Your task to perform on an android device: When is my next appointment? Image 0: 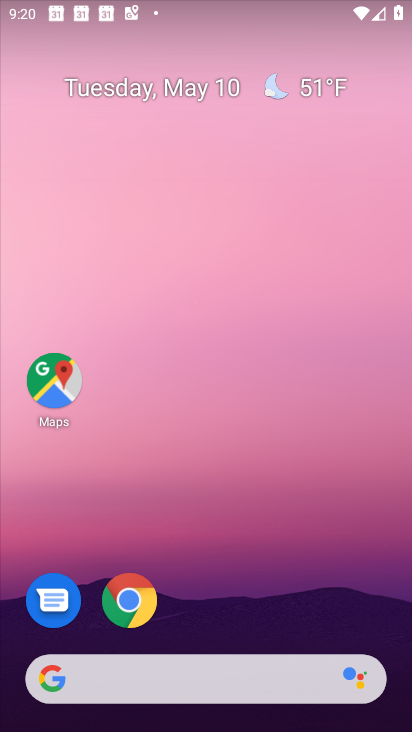
Step 0: click (213, 87)
Your task to perform on an android device: When is my next appointment? Image 1: 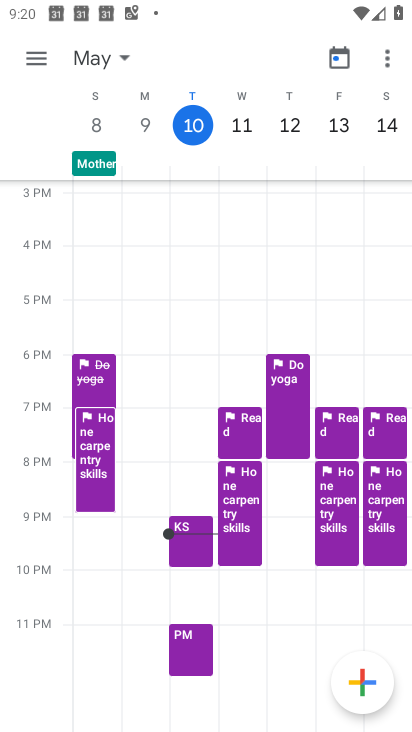
Step 1: click (40, 62)
Your task to perform on an android device: When is my next appointment? Image 2: 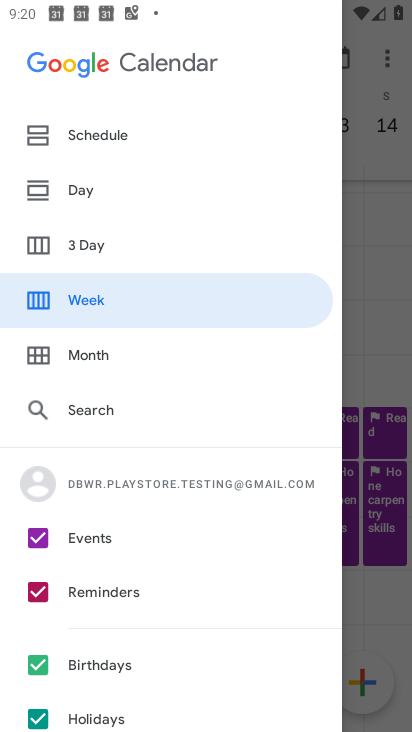
Step 2: click (123, 133)
Your task to perform on an android device: When is my next appointment? Image 3: 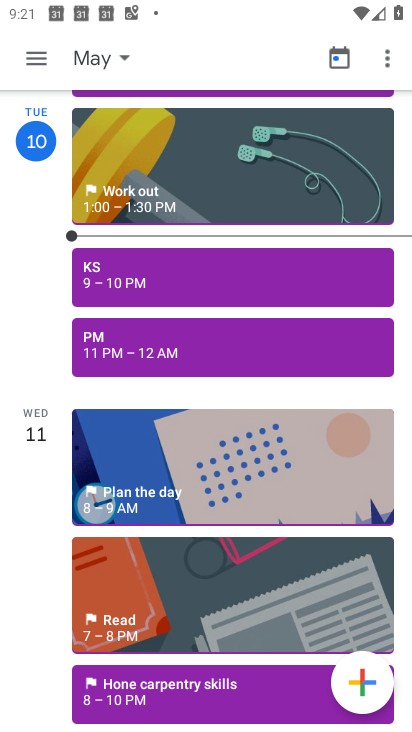
Step 3: task complete